Your task to perform on an android device: Check the news Image 0: 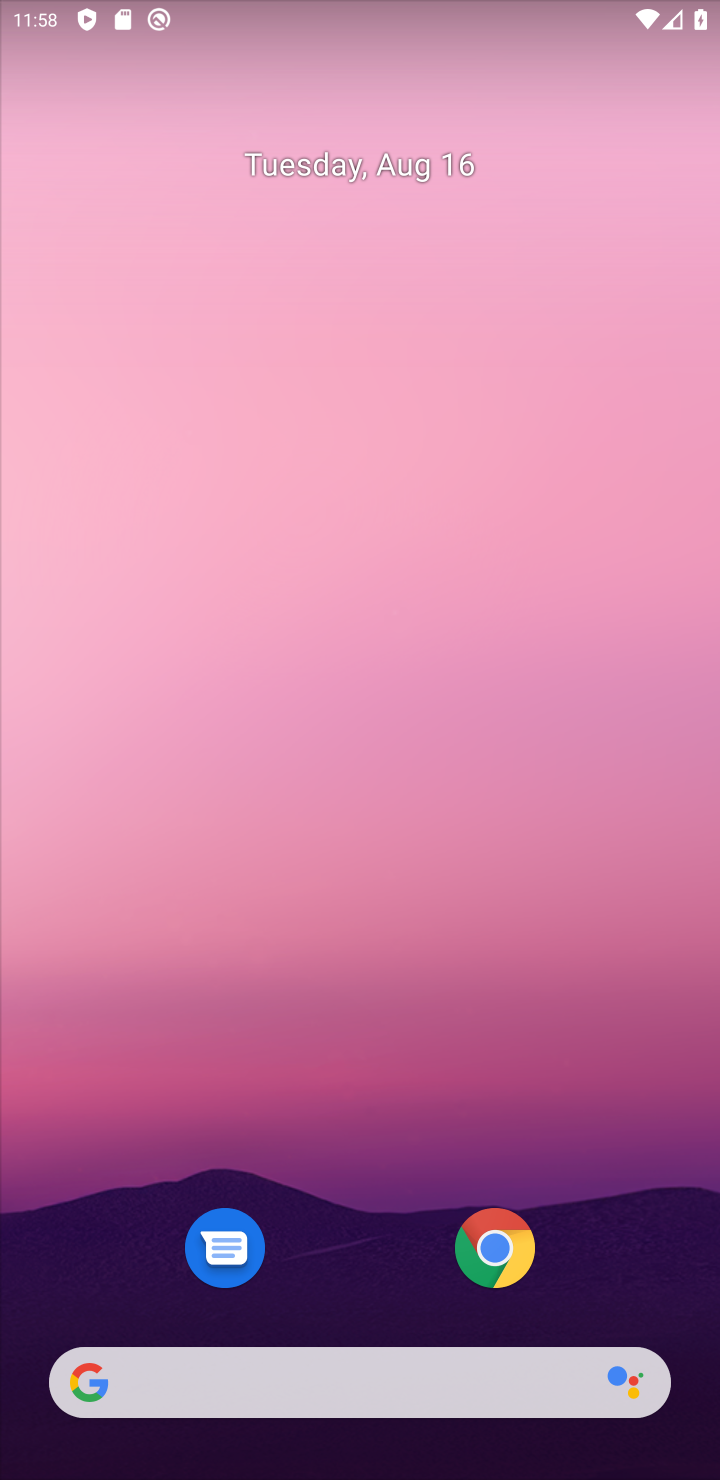
Step 0: drag from (301, 1111) to (378, 87)
Your task to perform on an android device: Check the news Image 1: 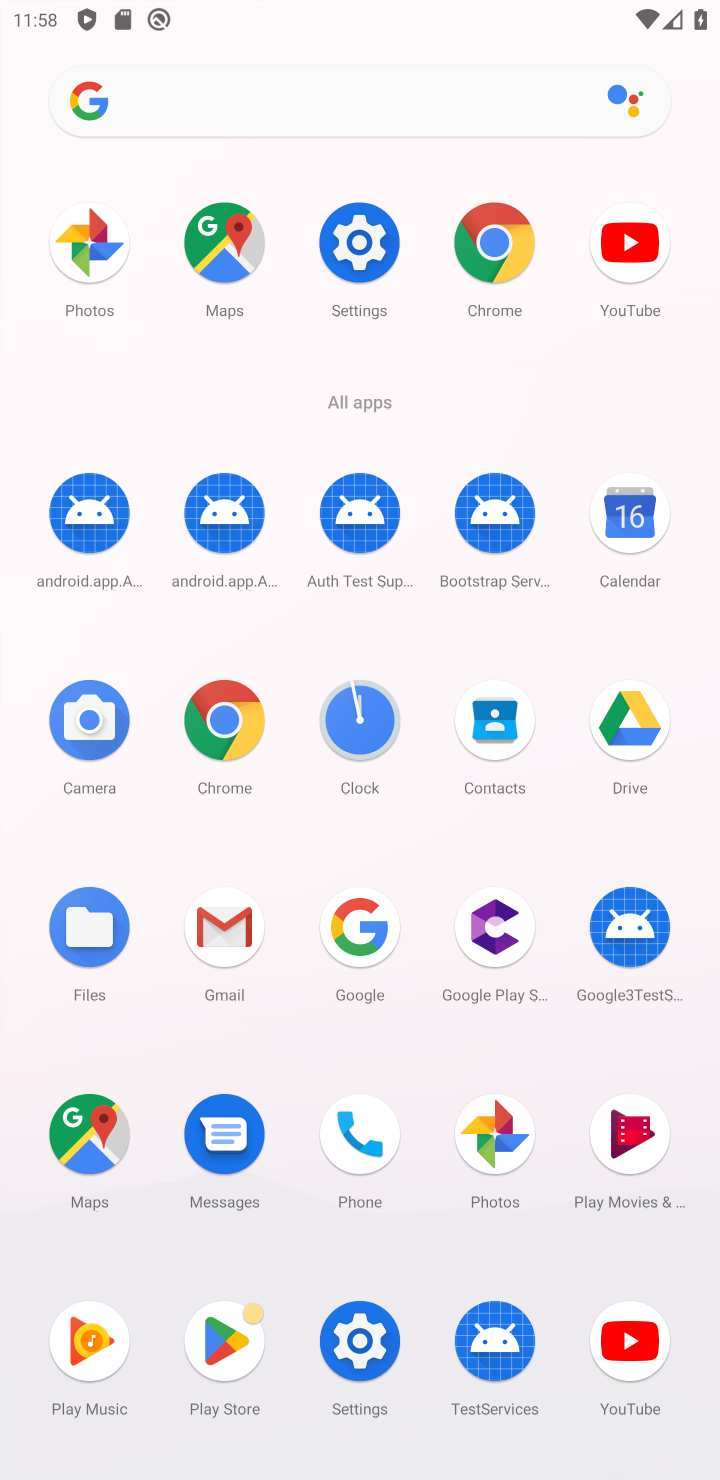
Step 1: click (477, 274)
Your task to perform on an android device: Check the news Image 2: 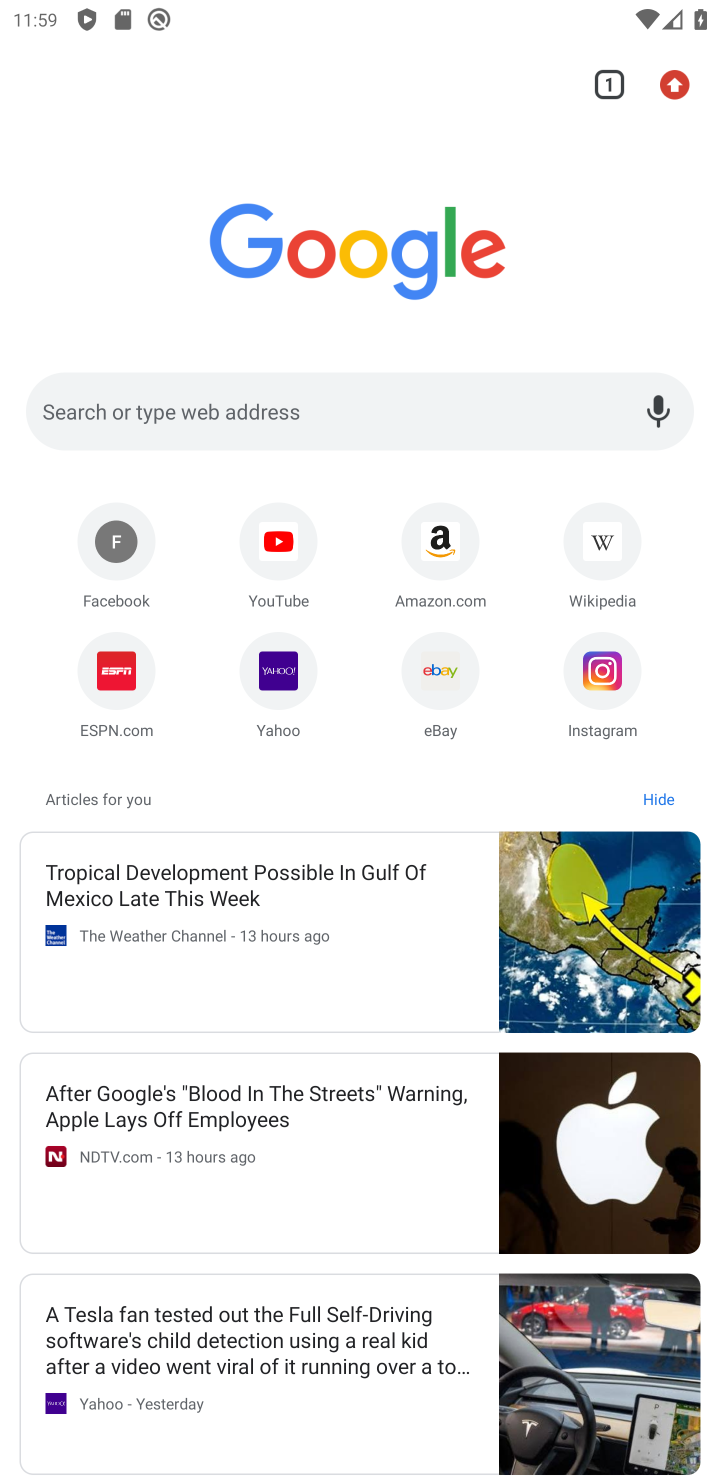
Step 2: task complete